Your task to perform on an android device: Go to wifi settings Image 0: 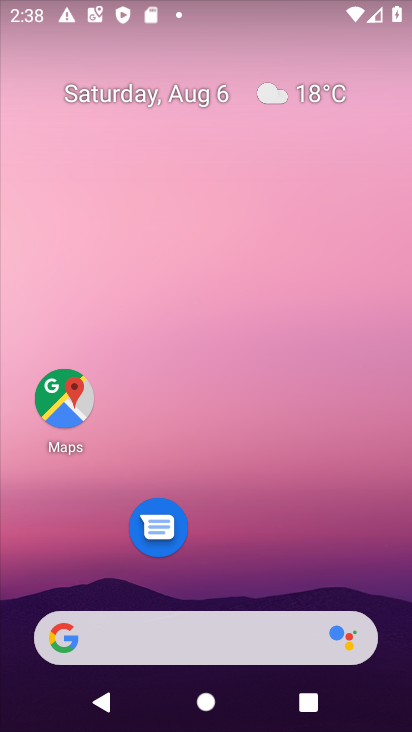
Step 0: drag from (259, 543) to (255, 72)
Your task to perform on an android device: Go to wifi settings Image 1: 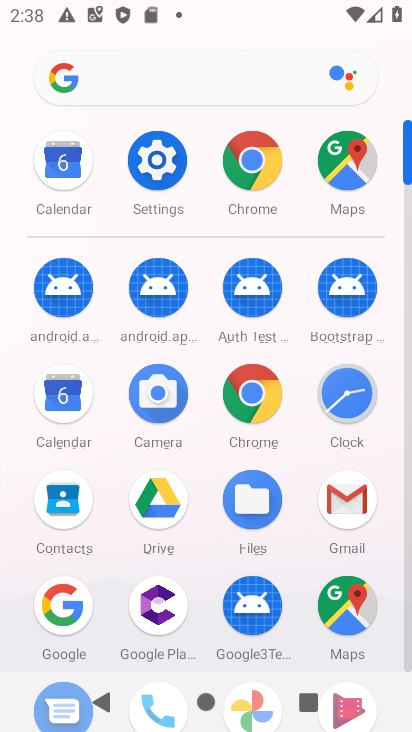
Step 1: drag from (223, 249) to (225, 93)
Your task to perform on an android device: Go to wifi settings Image 2: 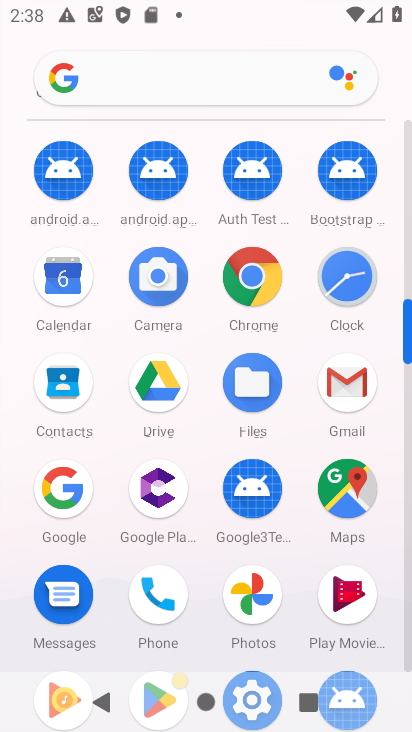
Step 2: drag from (208, 184) to (205, 23)
Your task to perform on an android device: Go to wifi settings Image 3: 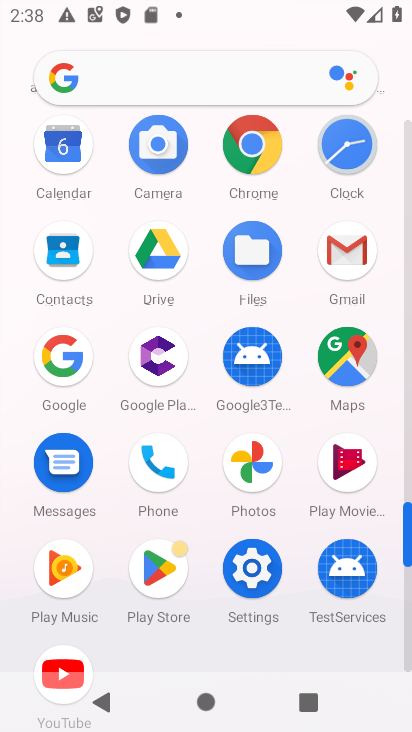
Step 3: click (244, 566)
Your task to perform on an android device: Go to wifi settings Image 4: 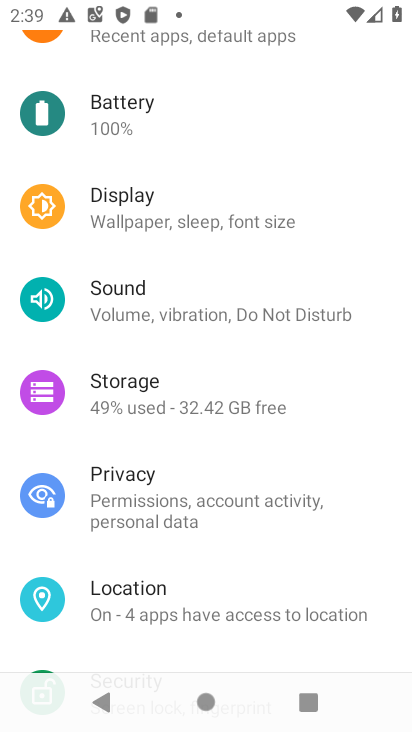
Step 4: drag from (256, 177) to (208, 663)
Your task to perform on an android device: Go to wifi settings Image 5: 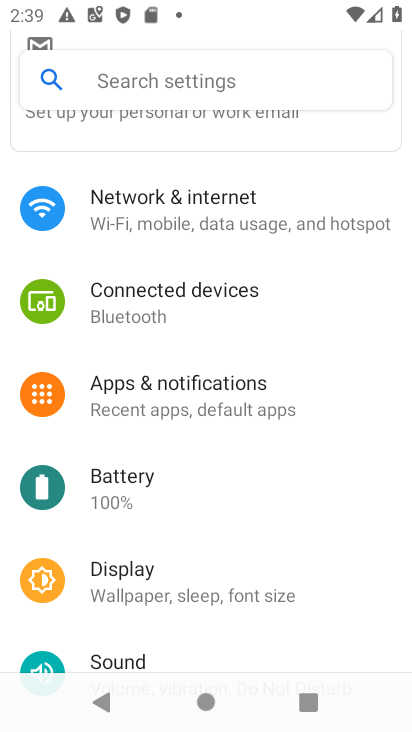
Step 5: drag from (221, 171) to (248, 516)
Your task to perform on an android device: Go to wifi settings Image 6: 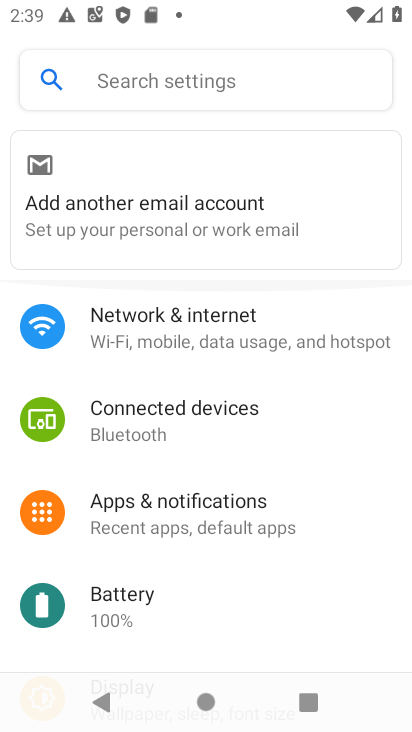
Step 6: click (233, 343)
Your task to perform on an android device: Go to wifi settings Image 7: 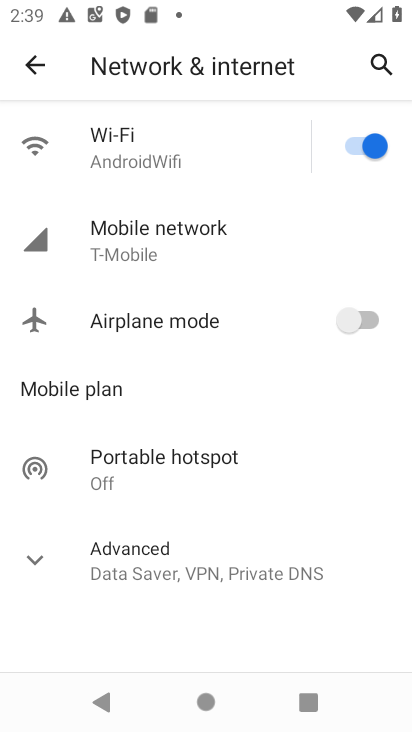
Step 7: click (175, 158)
Your task to perform on an android device: Go to wifi settings Image 8: 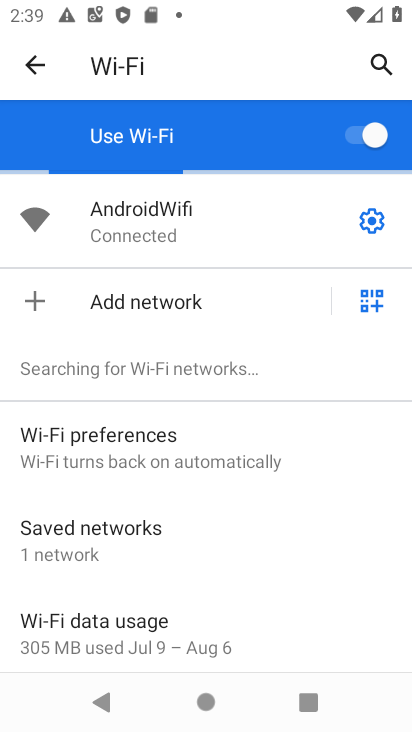
Step 8: task complete